Your task to perform on an android device: toggle wifi Image 0: 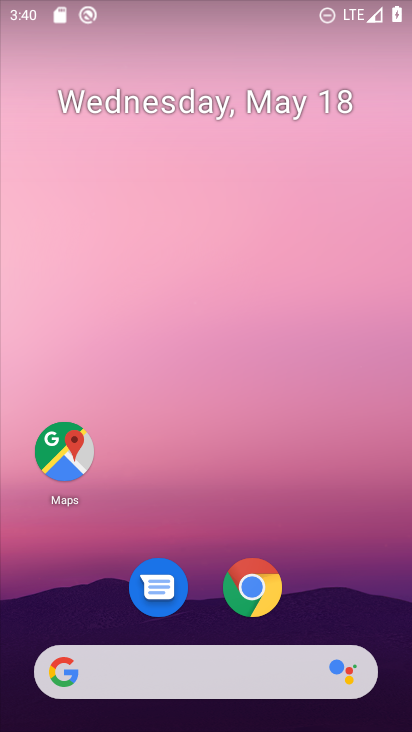
Step 0: drag from (187, 674) to (174, 61)
Your task to perform on an android device: toggle wifi Image 1: 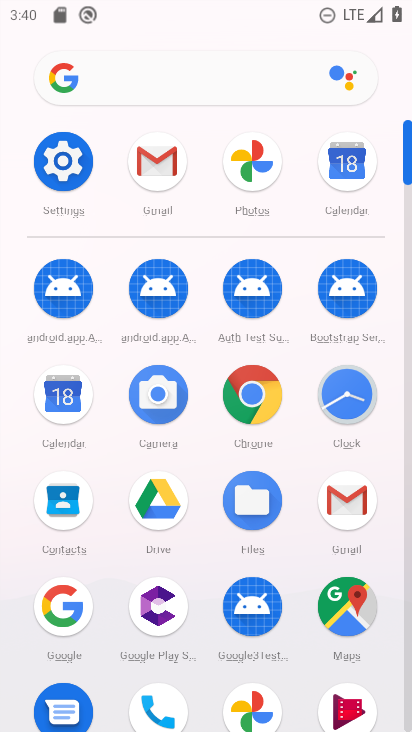
Step 1: click (68, 183)
Your task to perform on an android device: toggle wifi Image 2: 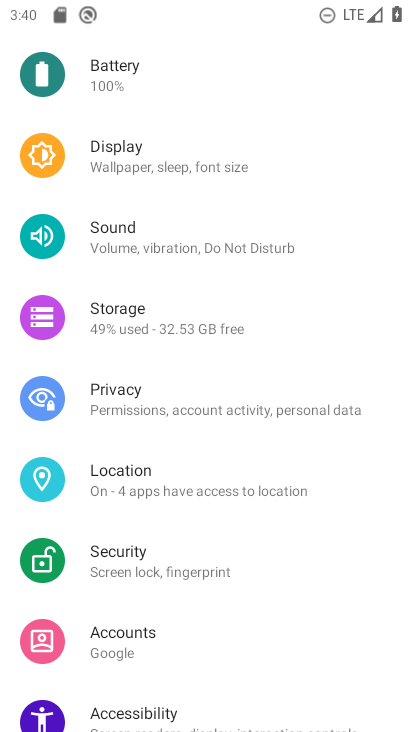
Step 2: drag from (135, 153) to (165, 604)
Your task to perform on an android device: toggle wifi Image 3: 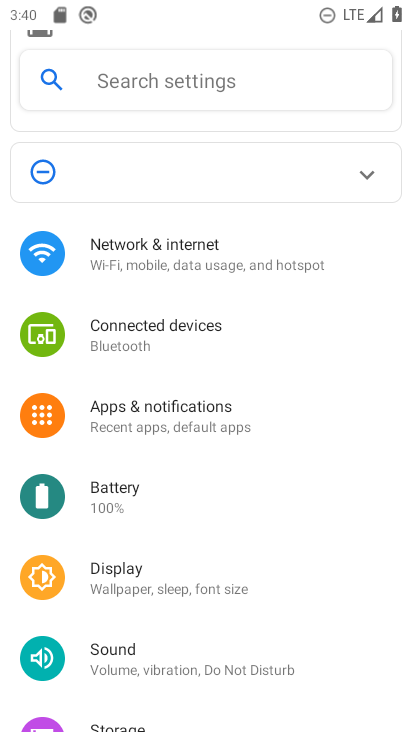
Step 3: click (185, 260)
Your task to perform on an android device: toggle wifi Image 4: 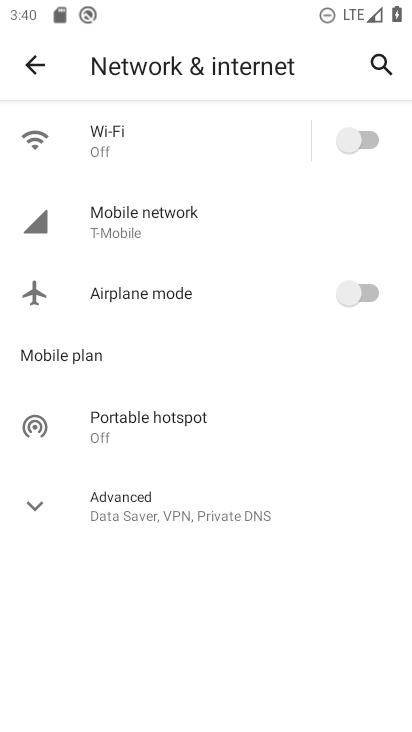
Step 4: click (89, 147)
Your task to perform on an android device: toggle wifi Image 5: 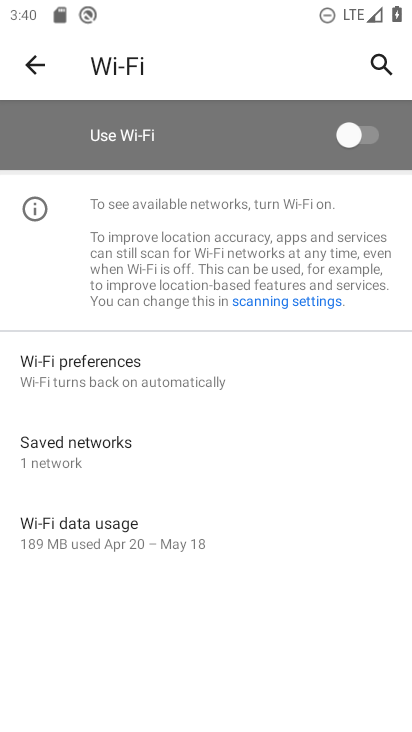
Step 5: task complete